Your task to perform on an android device: Go to wifi settings Image 0: 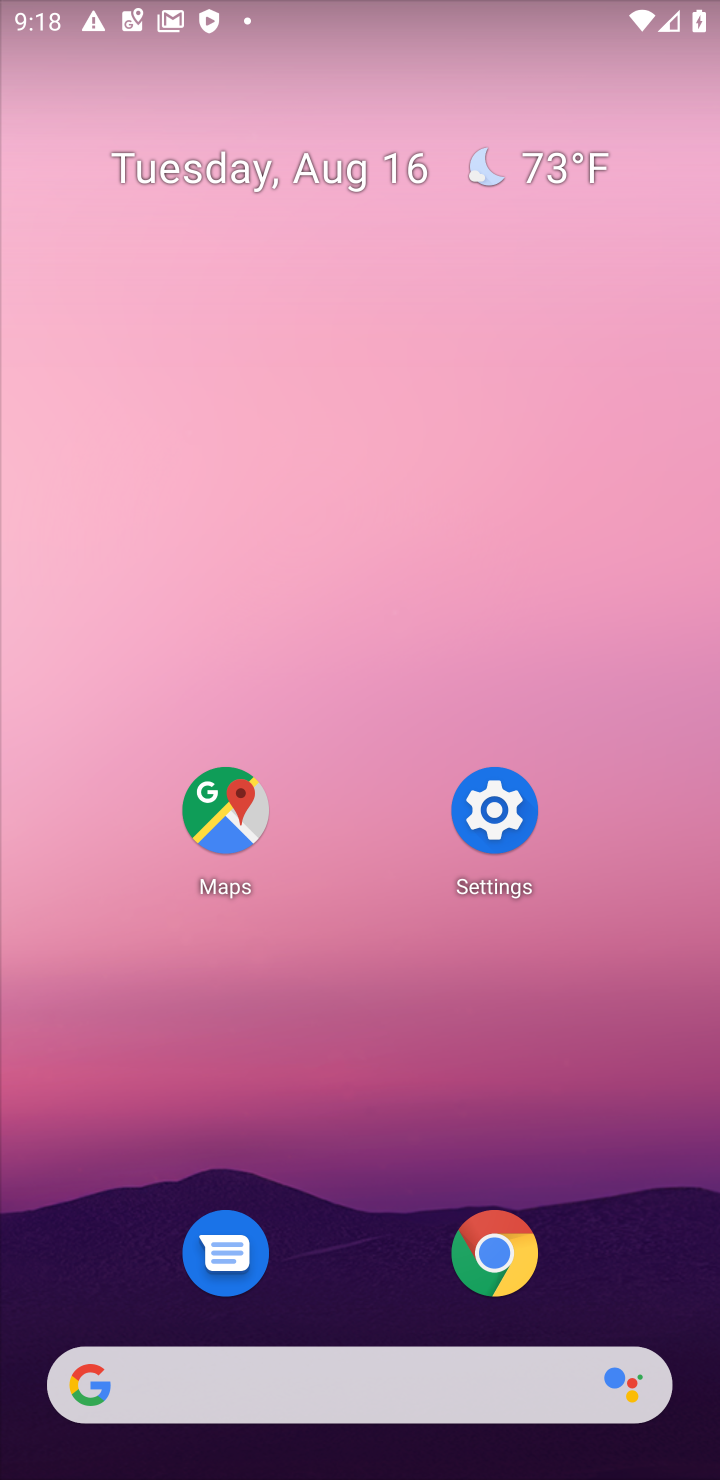
Step 0: click (489, 817)
Your task to perform on an android device: Go to wifi settings Image 1: 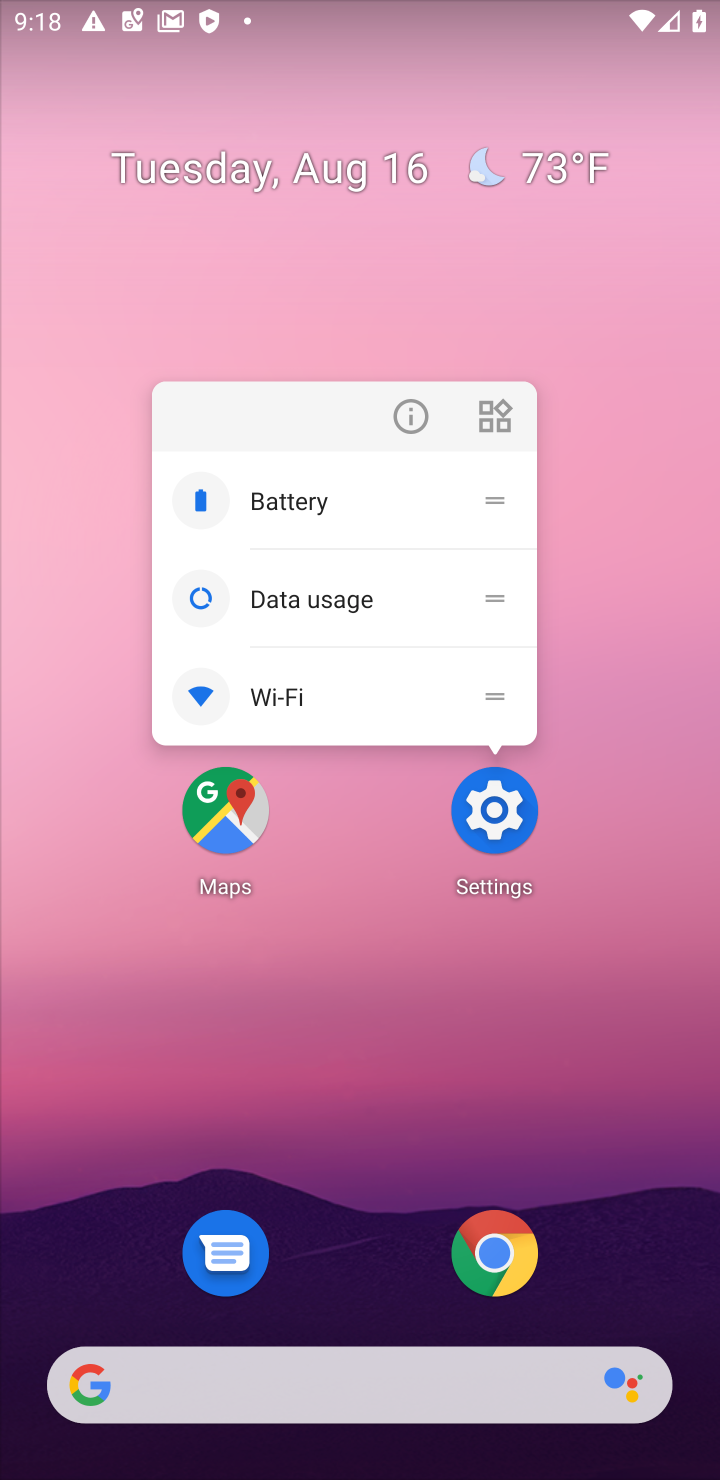
Step 1: click (489, 815)
Your task to perform on an android device: Go to wifi settings Image 2: 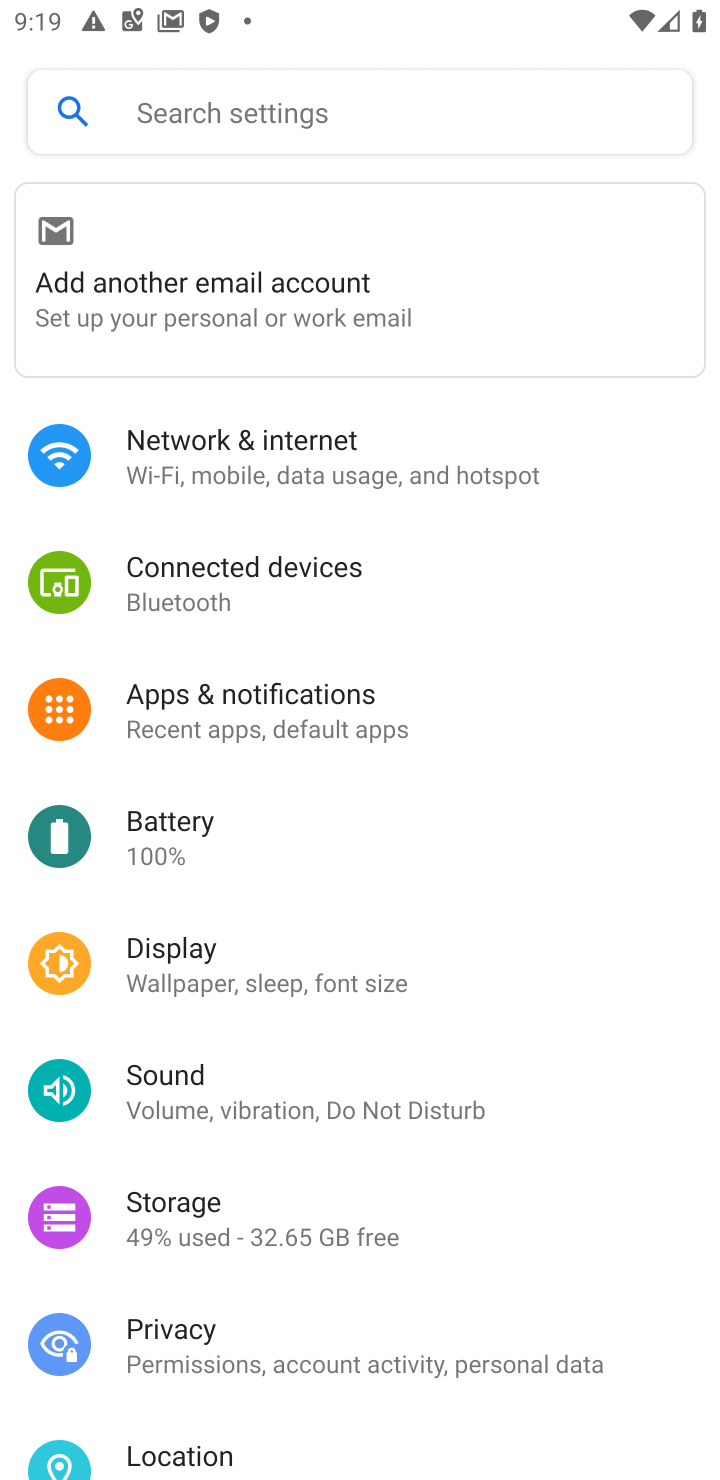
Step 2: click (376, 435)
Your task to perform on an android device: Go to wifi settings Image 3: 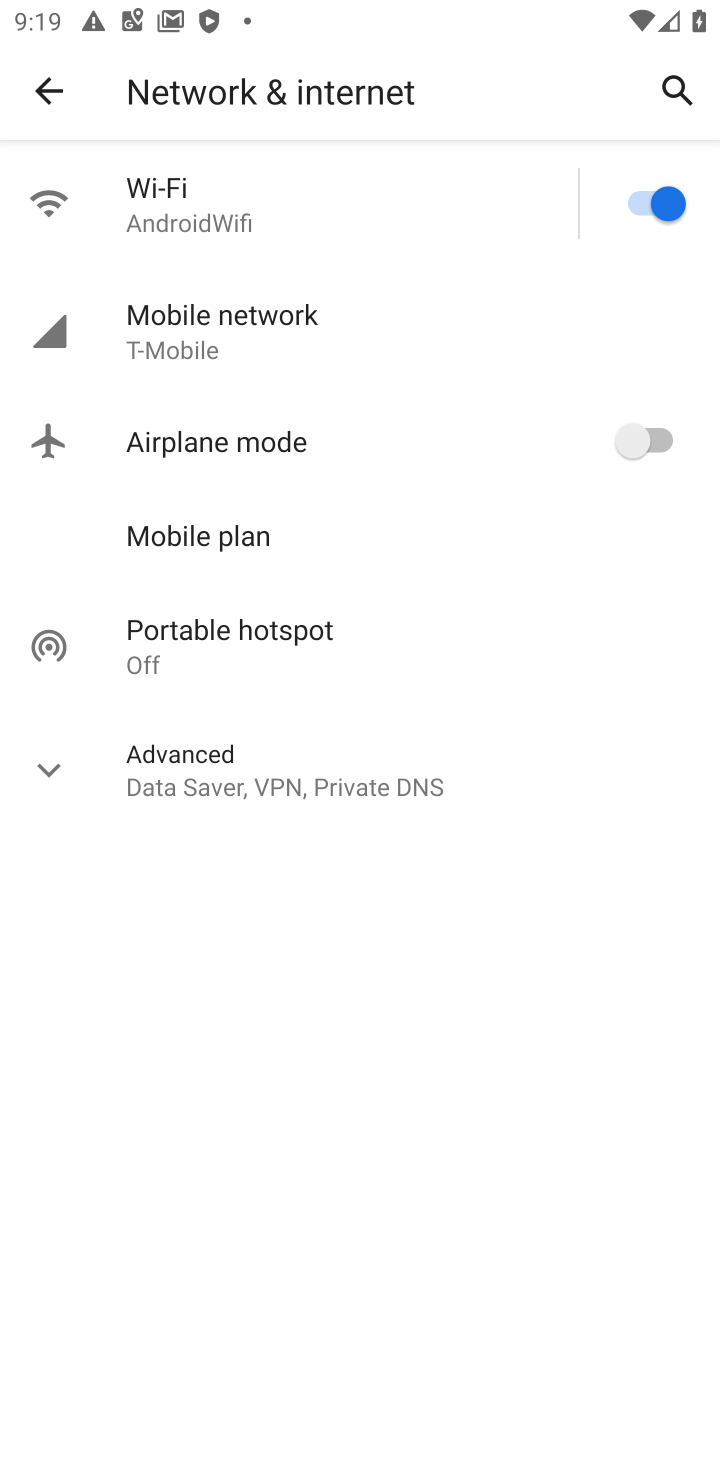
Step 3: click (185, 213)
Your task to perform on an android device: Go to wifi settings Image 4: 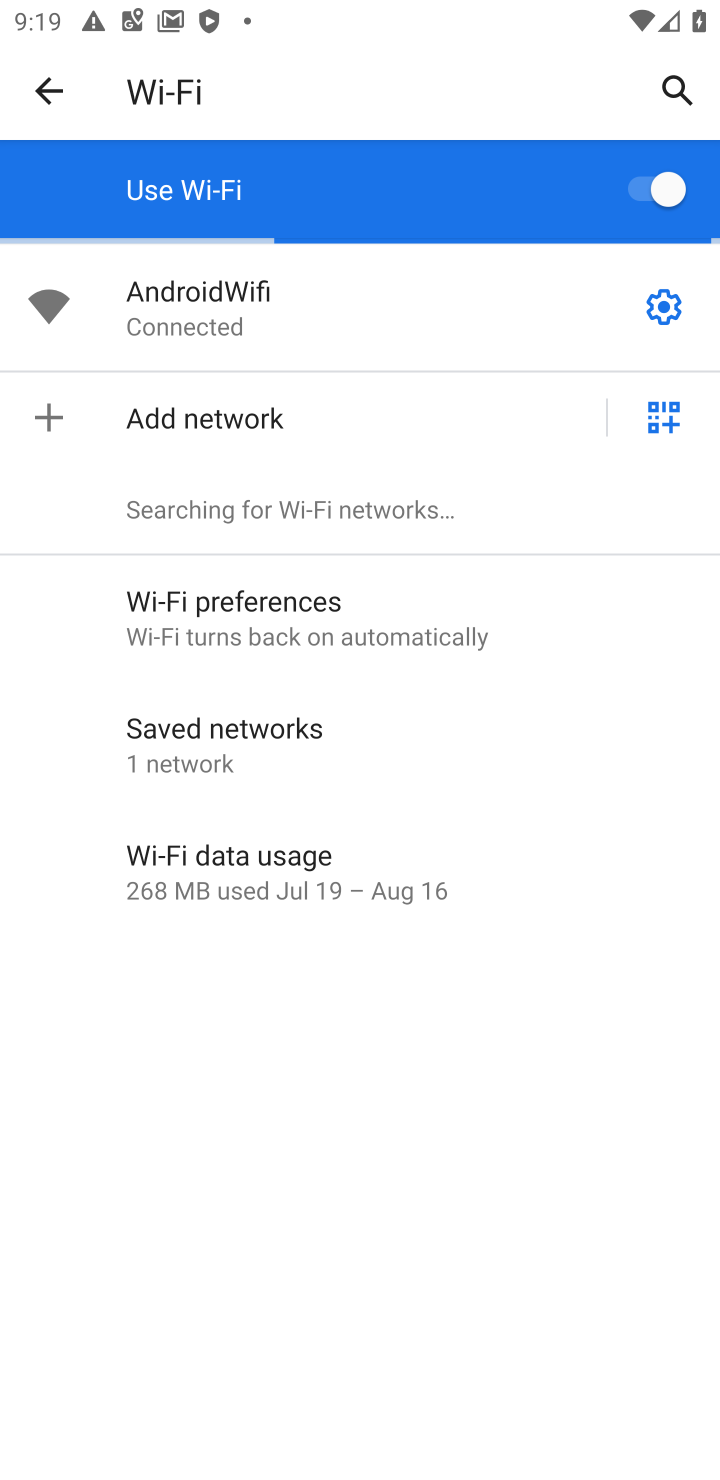
Step 4: task complete